Your task to perform on an android device: delete browsing data in the chrome app Image 0: 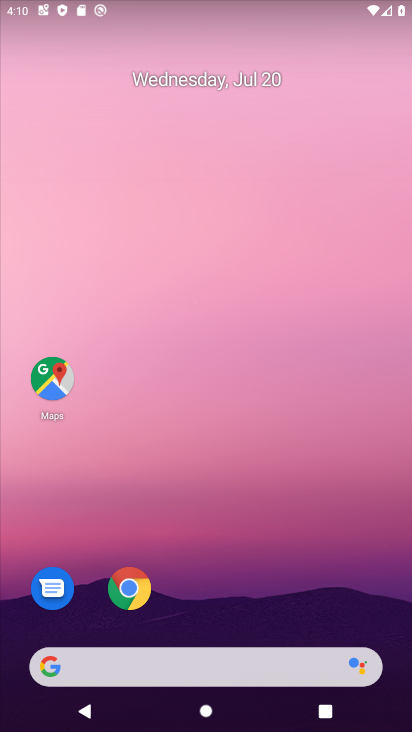
Step 0: drag from (267, 574) to (261, 83)
Your task to perform on an android device: delete browsing data in the chrome app Image 1: 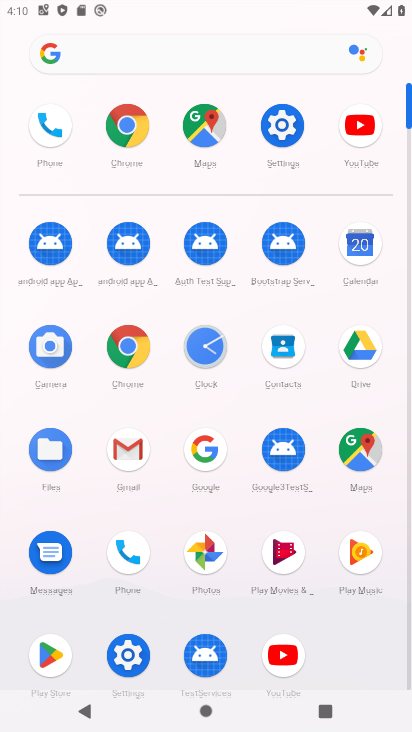
Step 1: click (132, 338)
Your task to perform on an android device: delete browsing data in the chrome app Image 2: 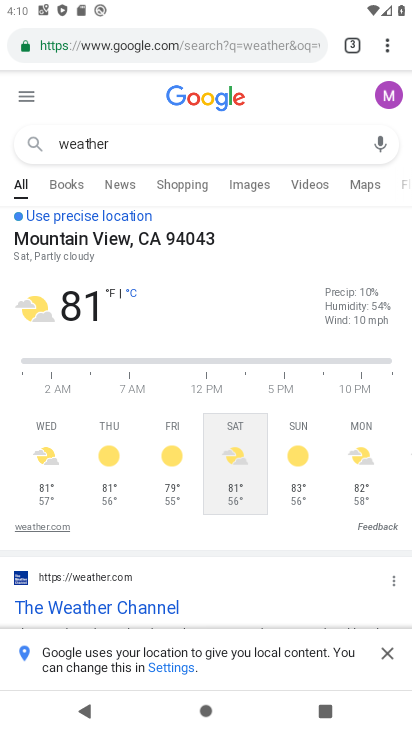
Step 2: drag from (389, 43) to (228, 257)
Your task to perform on an android device: delete browsing data in the chrome app Image 3: 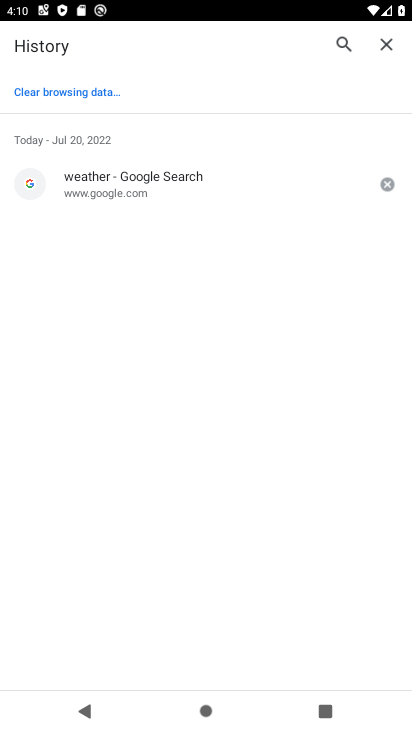
Step 3: click (81, 90)
Your task to perform on an android device: delete browsing data in the chrome app Image 4: 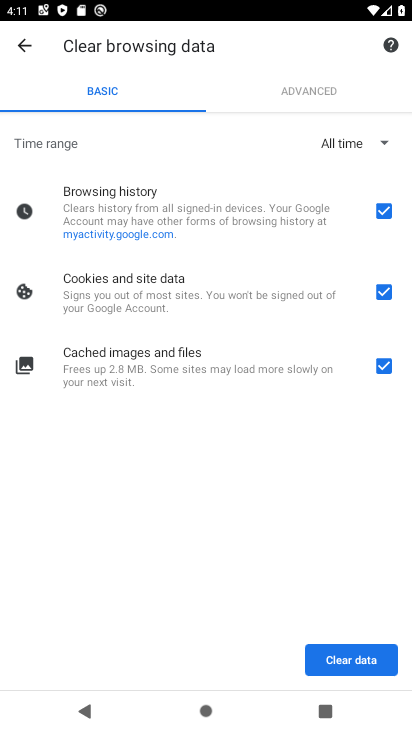
Step 4: click (357, 661)
Your task to perform on an android device: delete browsing data in the chrome app Image 5: 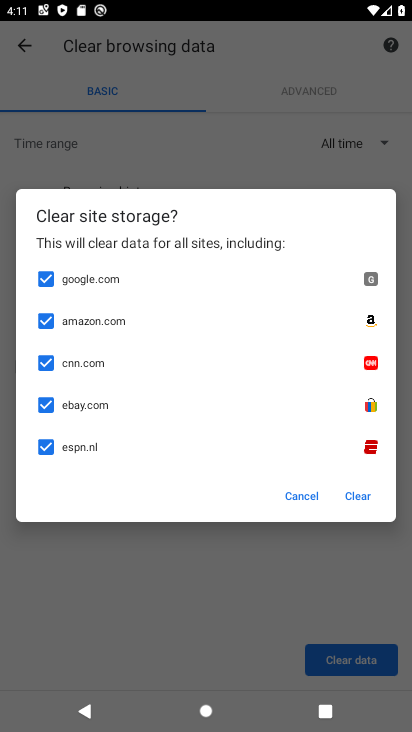
Step 5: click (364, 494)
Your task to perform on an android device: delete browsing data in the chrome app Image 6: 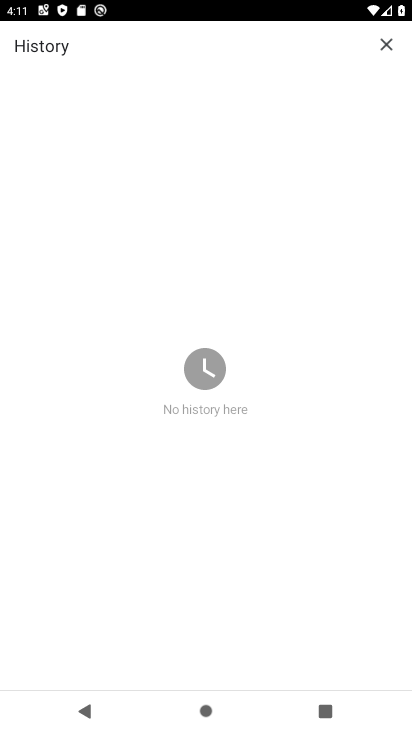
Step 6: task complete